Your task to perform on an android device: toggle sleep mode Image 0: 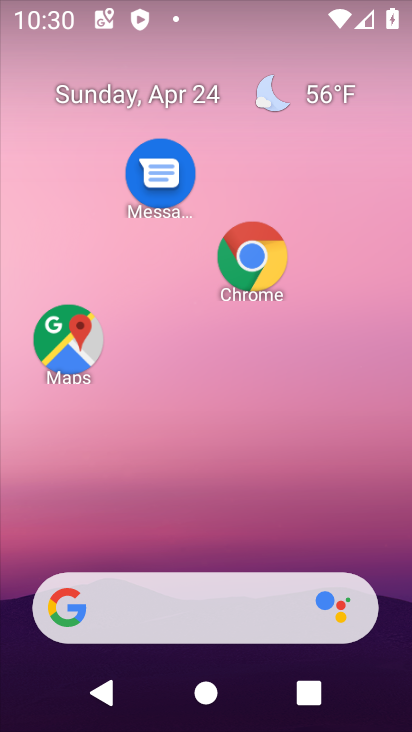
Step 0: drag from (225, 724) to (237, 75)
Your task to perform on an android device: toggle sleep mode Image 1: 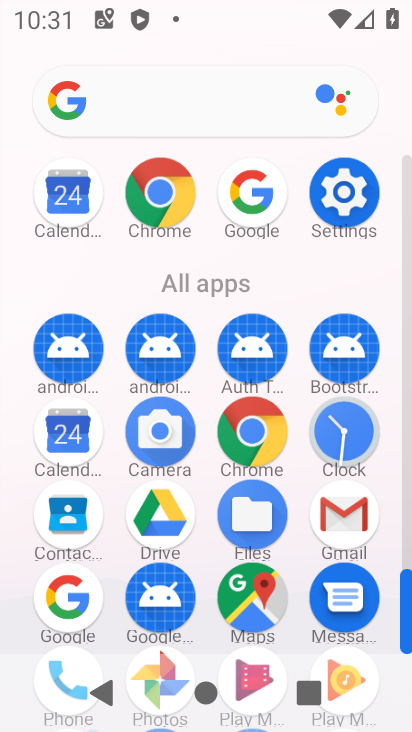
Step 1: click (345, 190)
Your task to perform on an android device: toggle sleep mode Image 2: 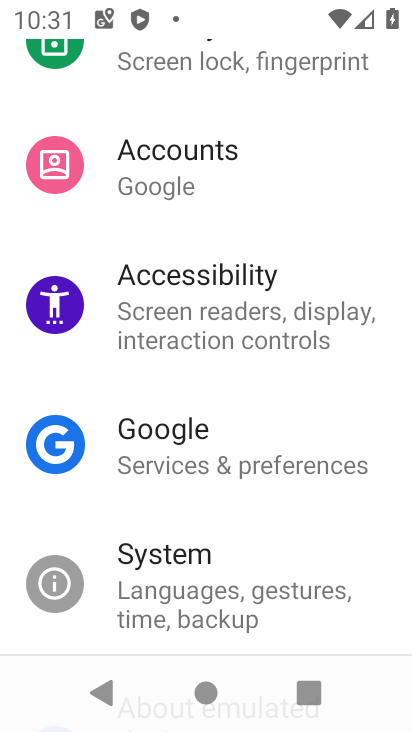
Step 2: drag from (259, 545) to (243, 92)
Your task to perform on an android device: toggle sleep mode Image 3: 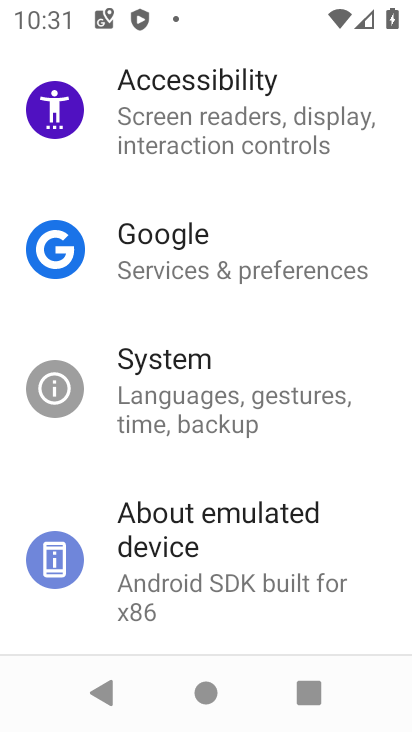
Step 3: drag from (277, 152) to (274, 512)
Your task to perform on an android device: toggle sleep mode Image 4: 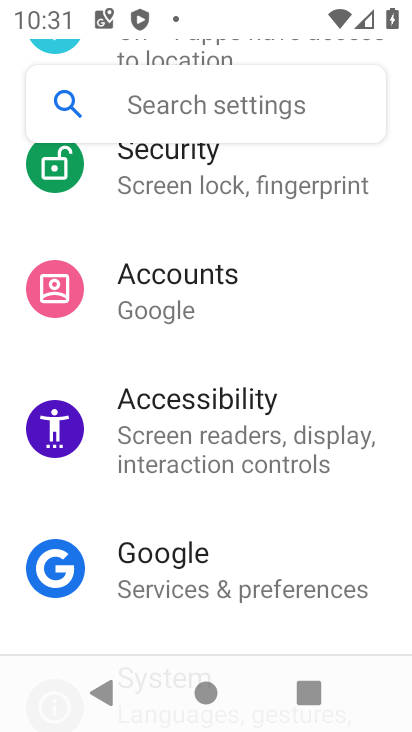
Step 4: drag from (291, 161) to (296, 537)
Your task to perform on an android device: toggle sleep mode Image 5: 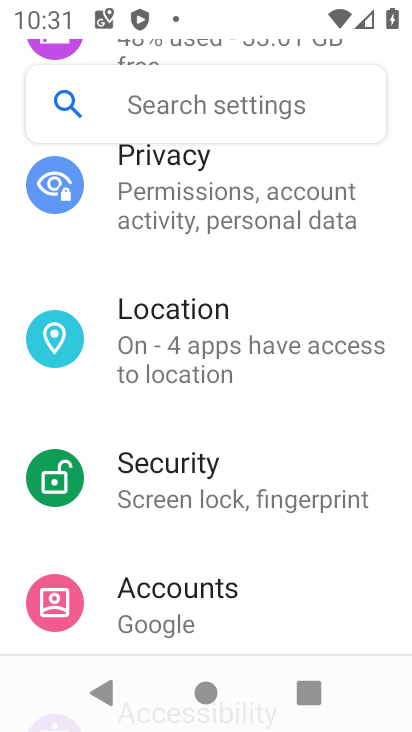
Step 5: drag from (269, 293) to (291, 578)
Your task to perform on an android device: toggle sleep mode Image 6: 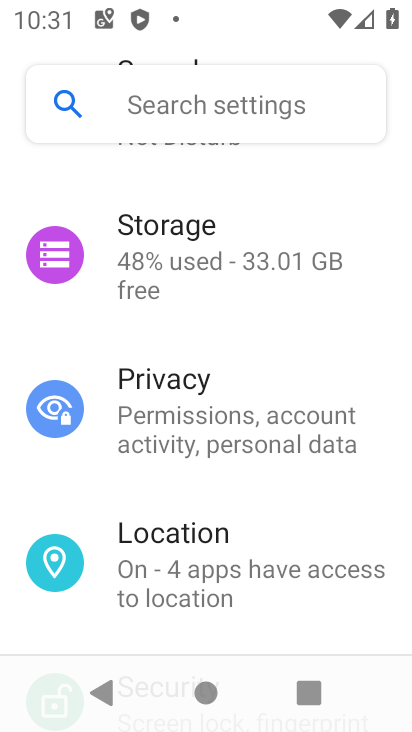
Step 6: drag from (253, 202) to (253, 575)
Your task to perform on an android device: toggle sleep mode Image 7: 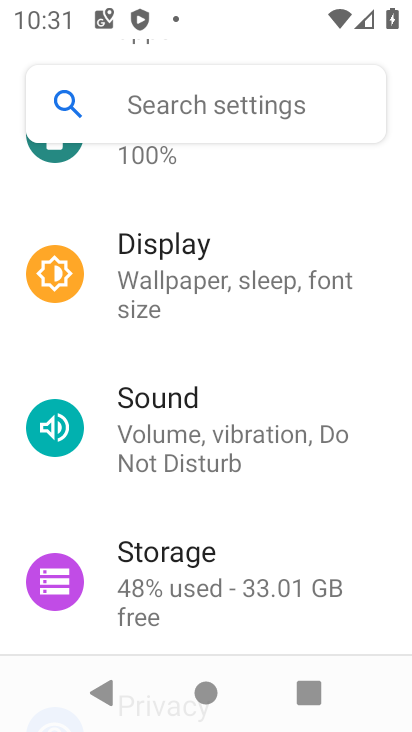
Step 7: drag from (240, 181) to (251, 504)
Your task to perform on an android device: toggle sleep mode Image 8: 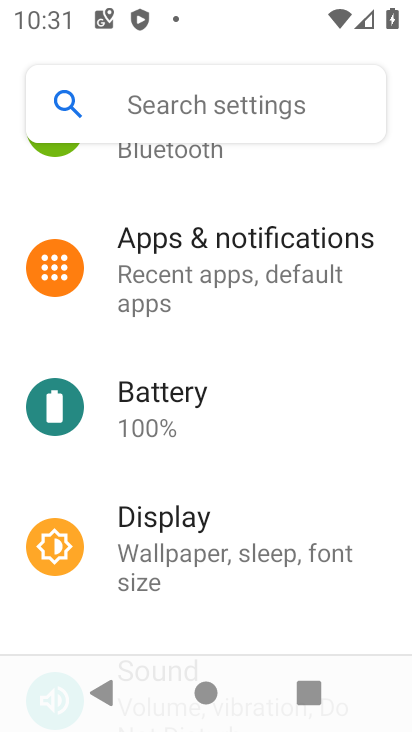
Step 8: click (245, 194)
Your task to perform on an android device: toggle sleep mode Image 9: 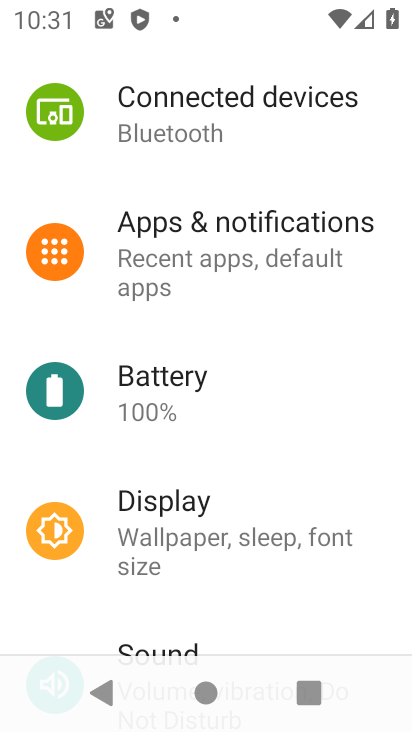
Step 9: click (144, 538)
Your task to perform on an android device: toggle sleep mode Image 10: 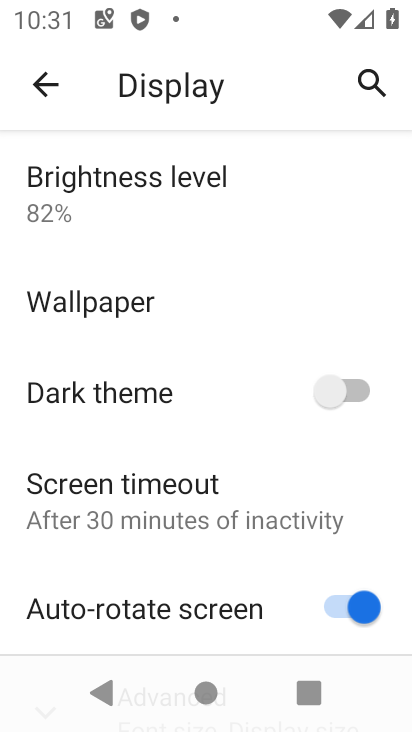
Step 10: task complete